Your task to perform on an android device: Go to ESPN.com Image 0: 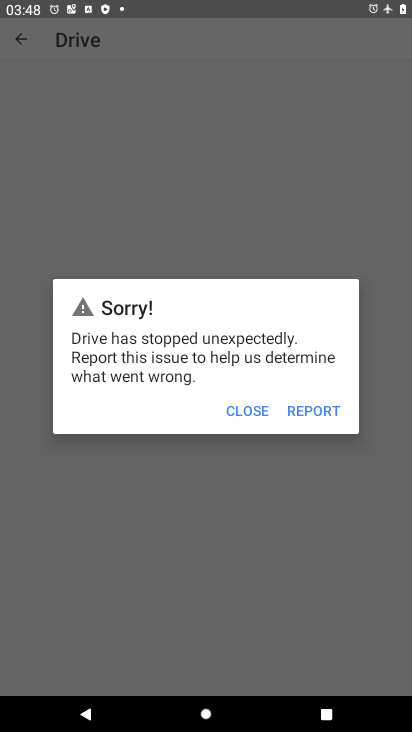
Step 0: press home button
Your task to perform on an android device: Go to ESPN.com Image 1: 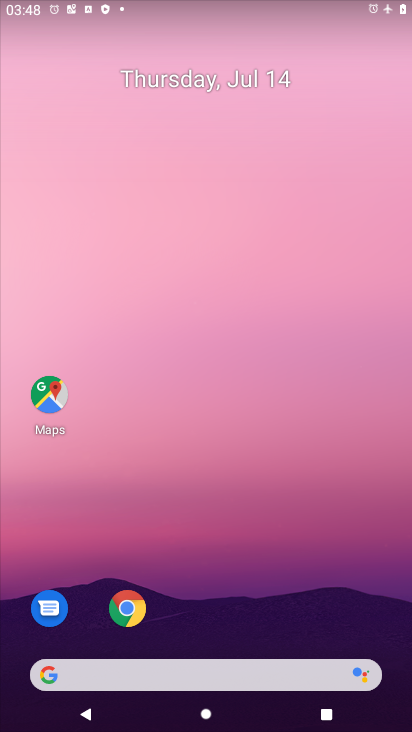
Step 1: click (126, 610)
Your task to perform on an android device: Go to ESPN.com Image 2: 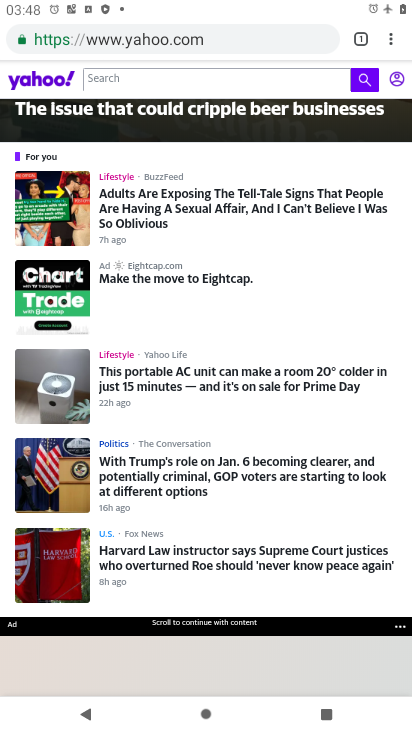
Step 2: click (247, 36)
Your task to perform on an android device: Go to ESPN.com Image 3: 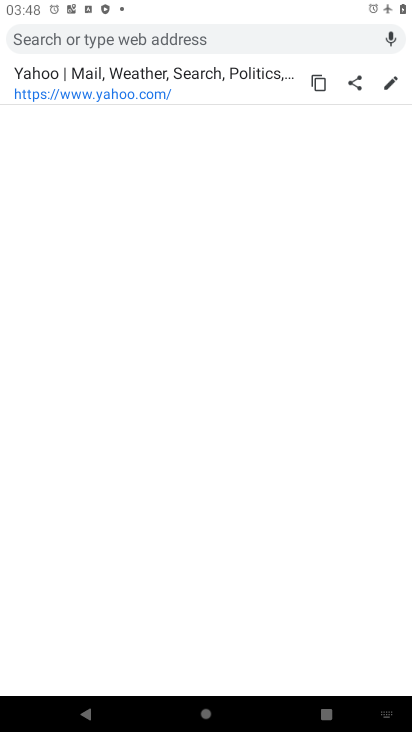
Step 3: type "ESPN.com"
Your task to perform on an android device: Go to ESPN.com Image 4: 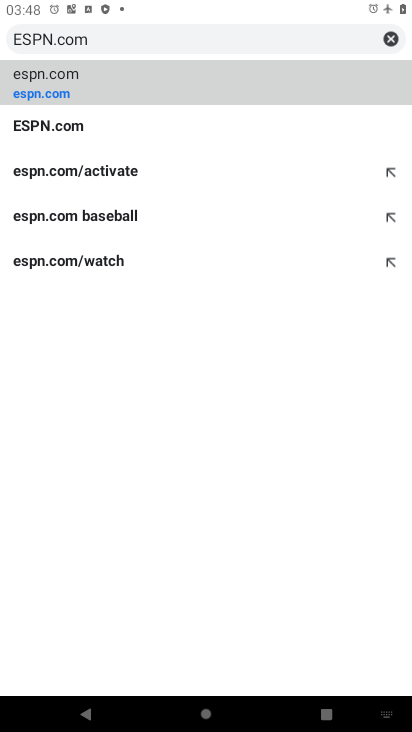
Step 4: click (49, 74)
Your task to perform on an android device: Go to ESPN.com Image 5: 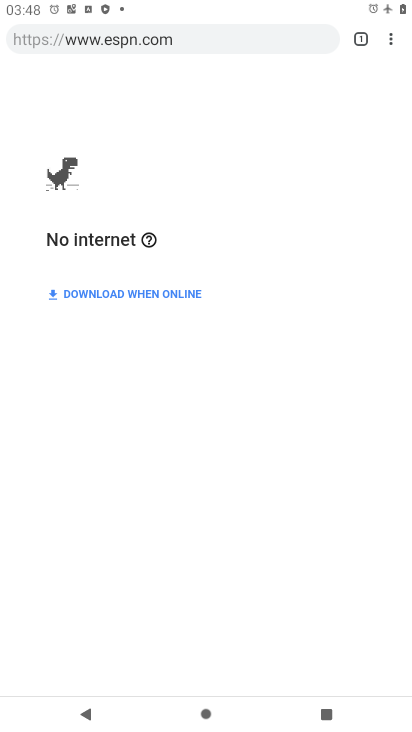
Step 5: task complete